Your task to perform on an android device: View the shopping cart on newegg.com. Add "jbl flip 4" to the cart on newegg.com Image 0: 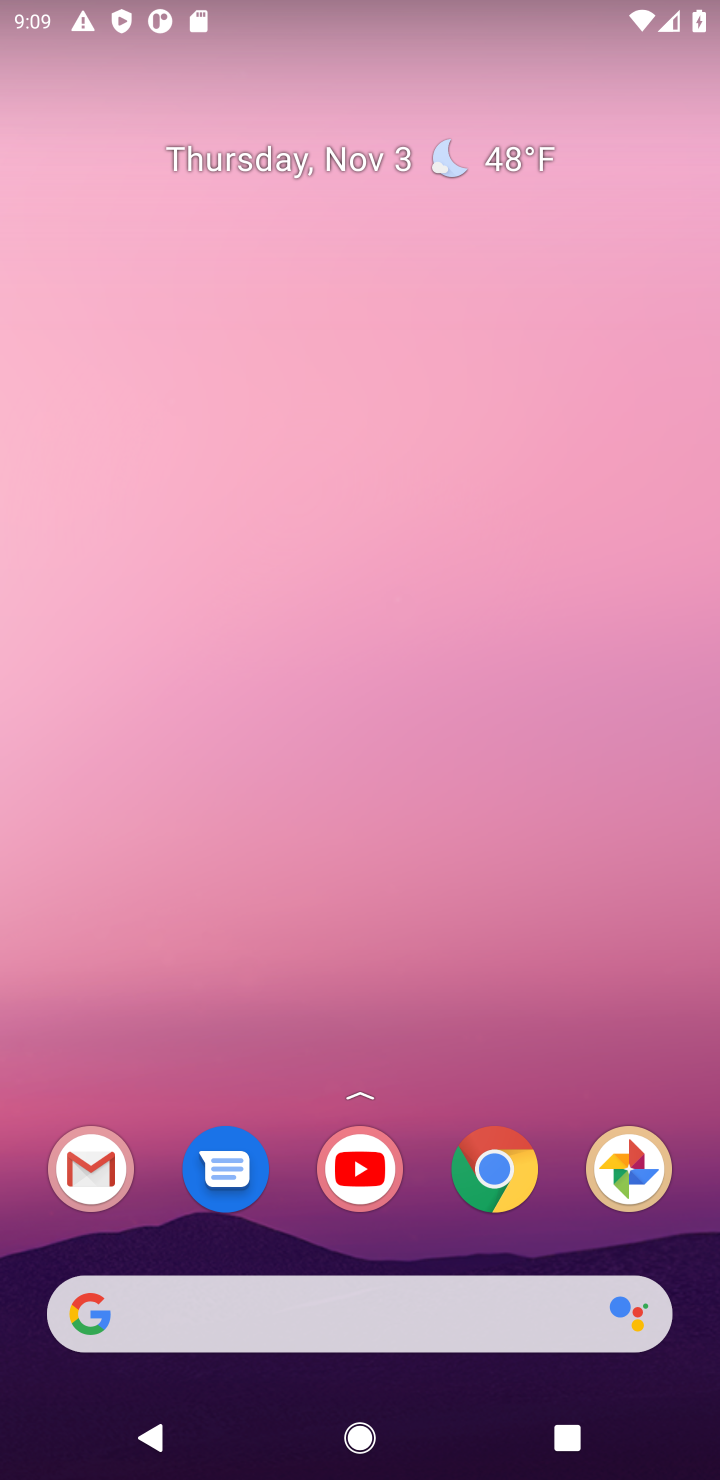
Step 0: drag from (433, 1258) to (546, 216)
Your task to perform on an android device: View the shopping cart on newegg.com. Add "jbl flip 4" to the cart on newegg.com Image 1: 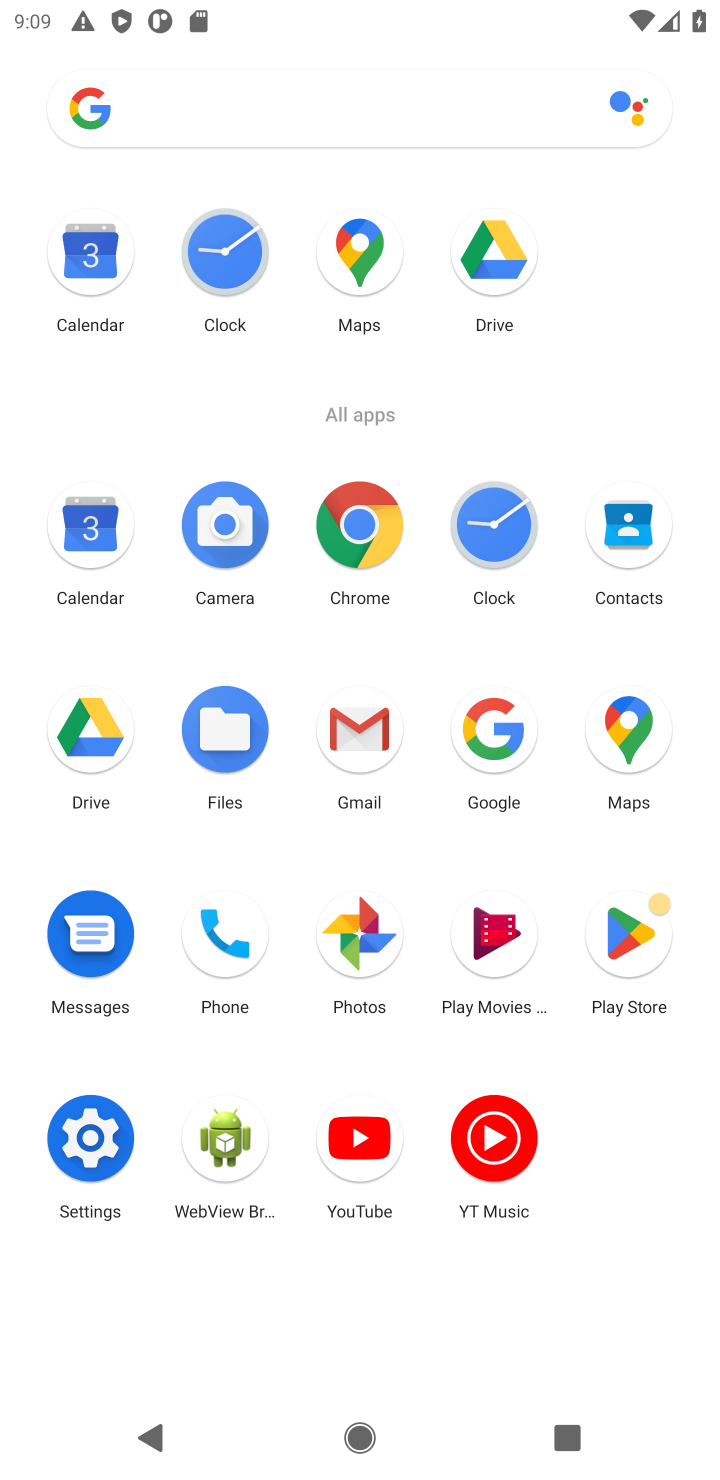
Step 1: click (361, 529)
Your task to perform on an android device: View the shopping cart on newegg.com. Add "jbl flip 4" to the cart on newegg.com Image 2: 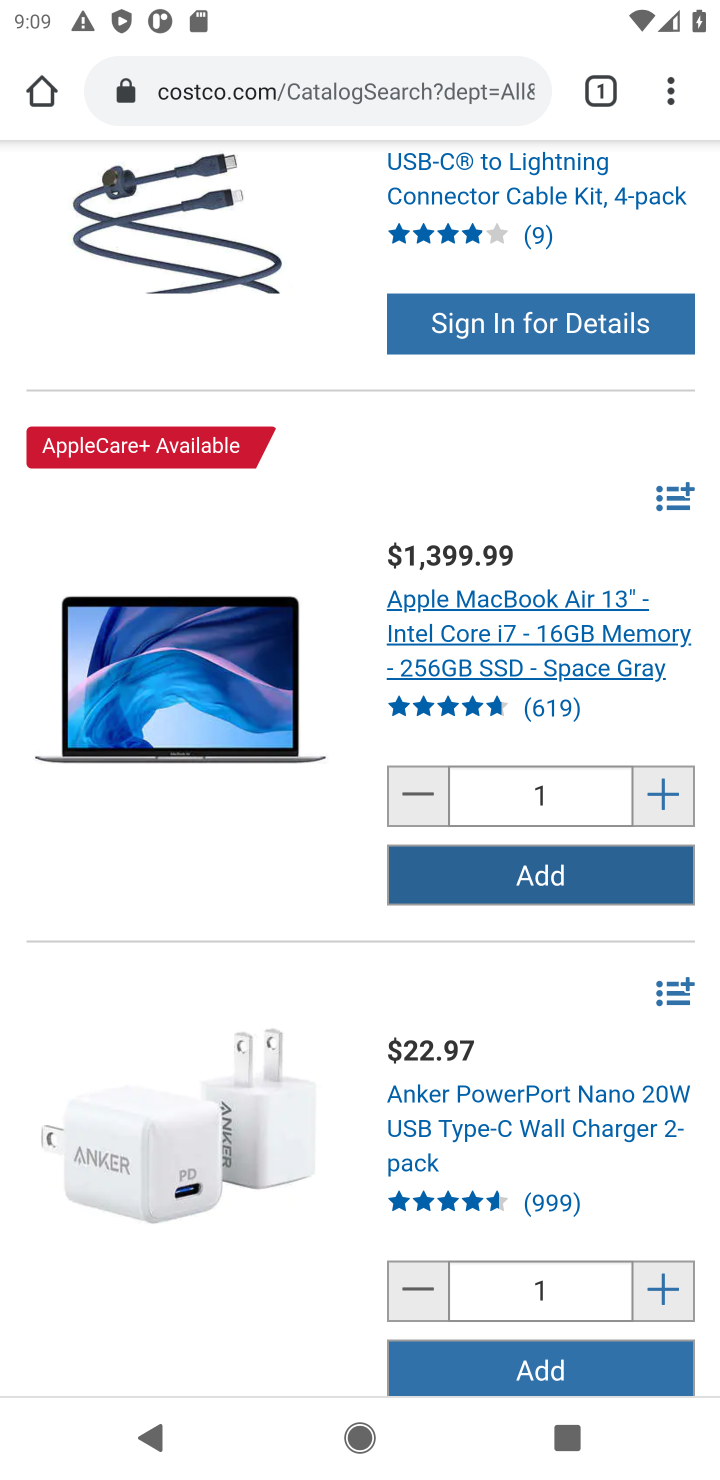
Step 2: drag from (293, 206) to (342, 927)
Your task to perform on an android device: View the shopping cart on newegg.com. Add "jbl flip 4" to the cart on newegg.com Image 3: 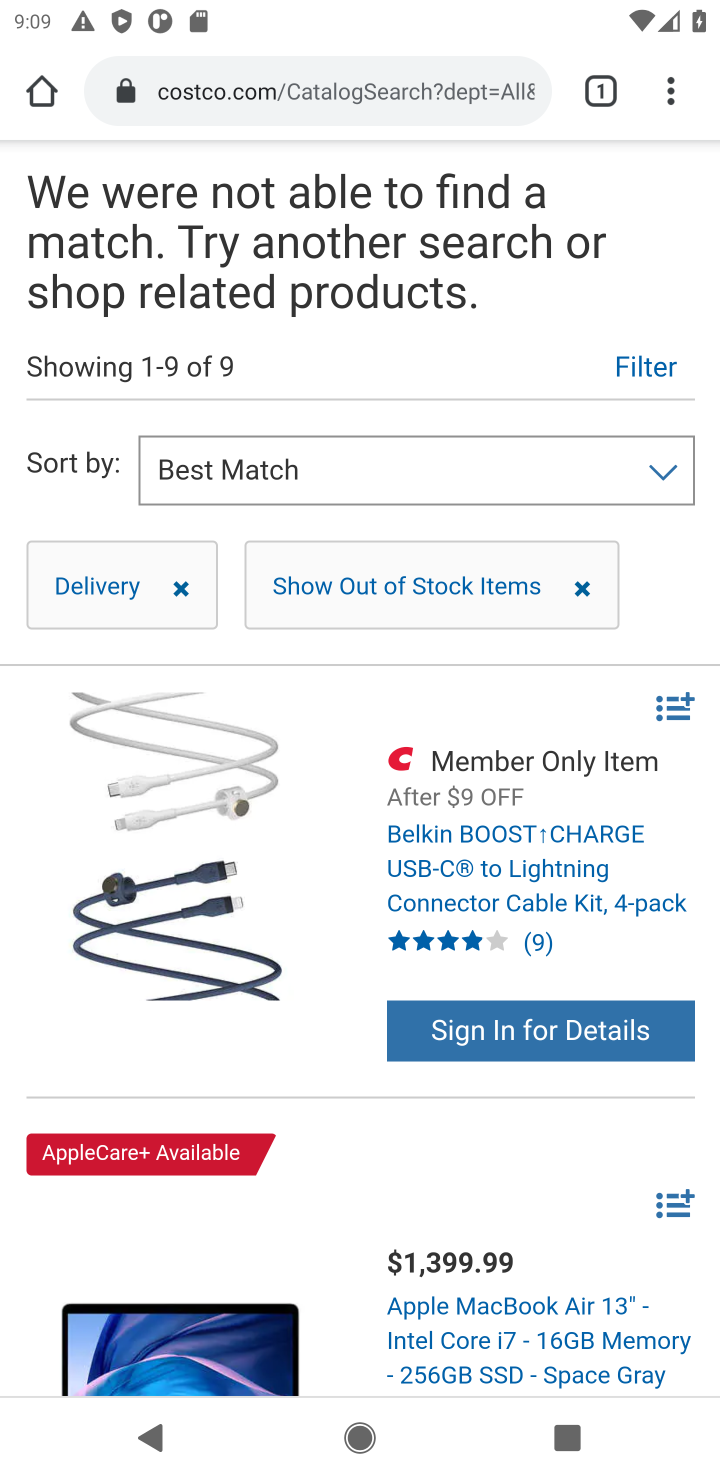
Step 3: drag from (351, 256) to (387, 813)
Your task to perform on an android device: View the shopping cart on newegg.com. Add "jbl flip 4" to the cart on newegg.com Image 4: 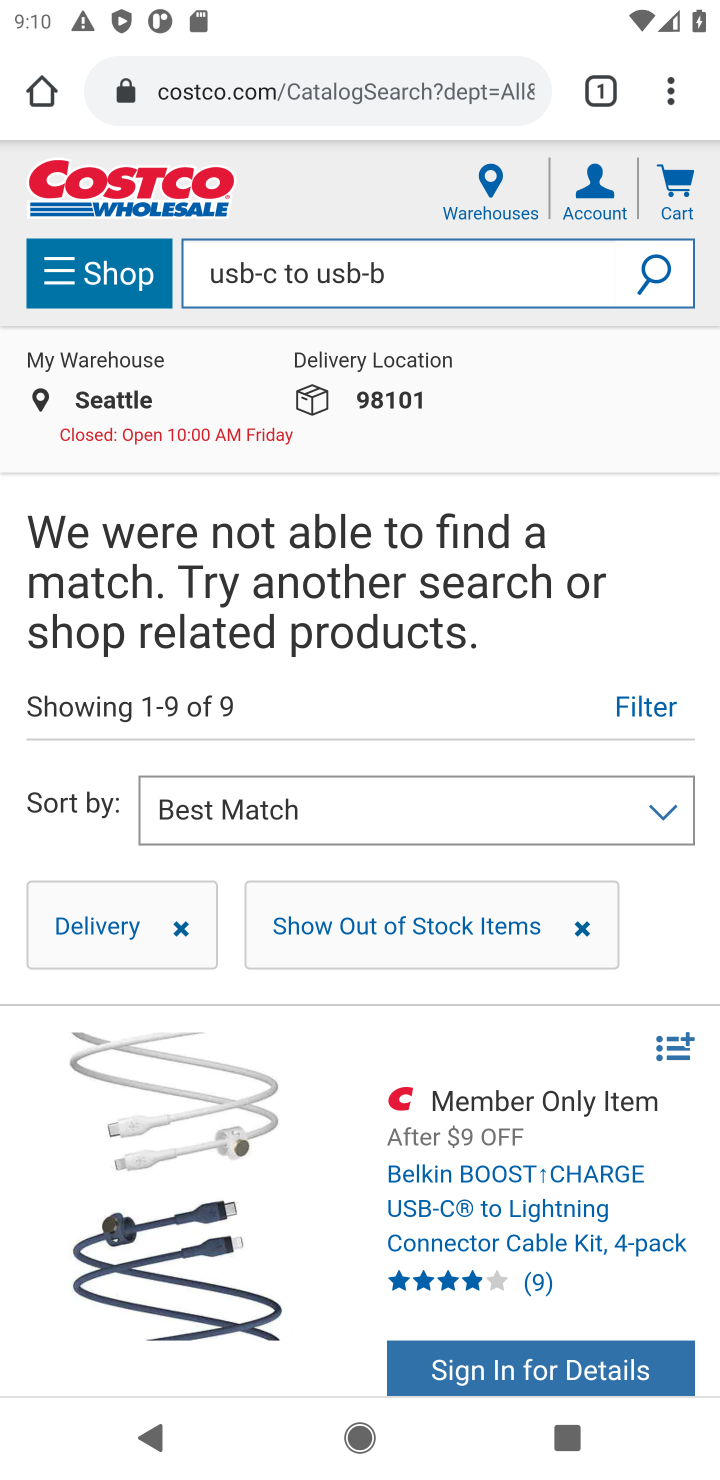
Step 4: click (361, 104)
Your task to perform on an android device: View the shopping cart on newegg.com. Add "jbl flip 4" to the cart on newegg.com Image 5: 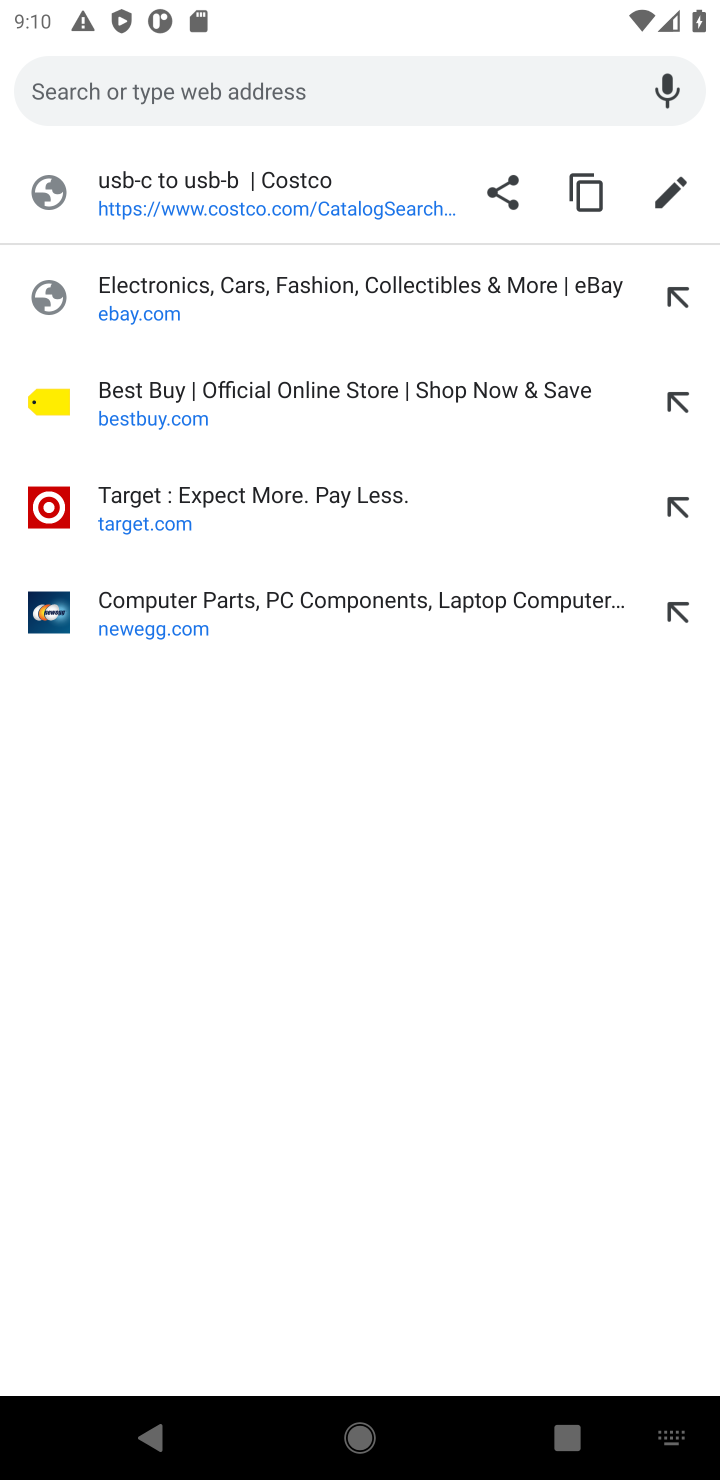
Step 5: type "newegg.com"
Your task to perform on an android device: View the shopping cart on newegg.com. Add "jbl flip 4" to the cart on newegg.com Image 6: 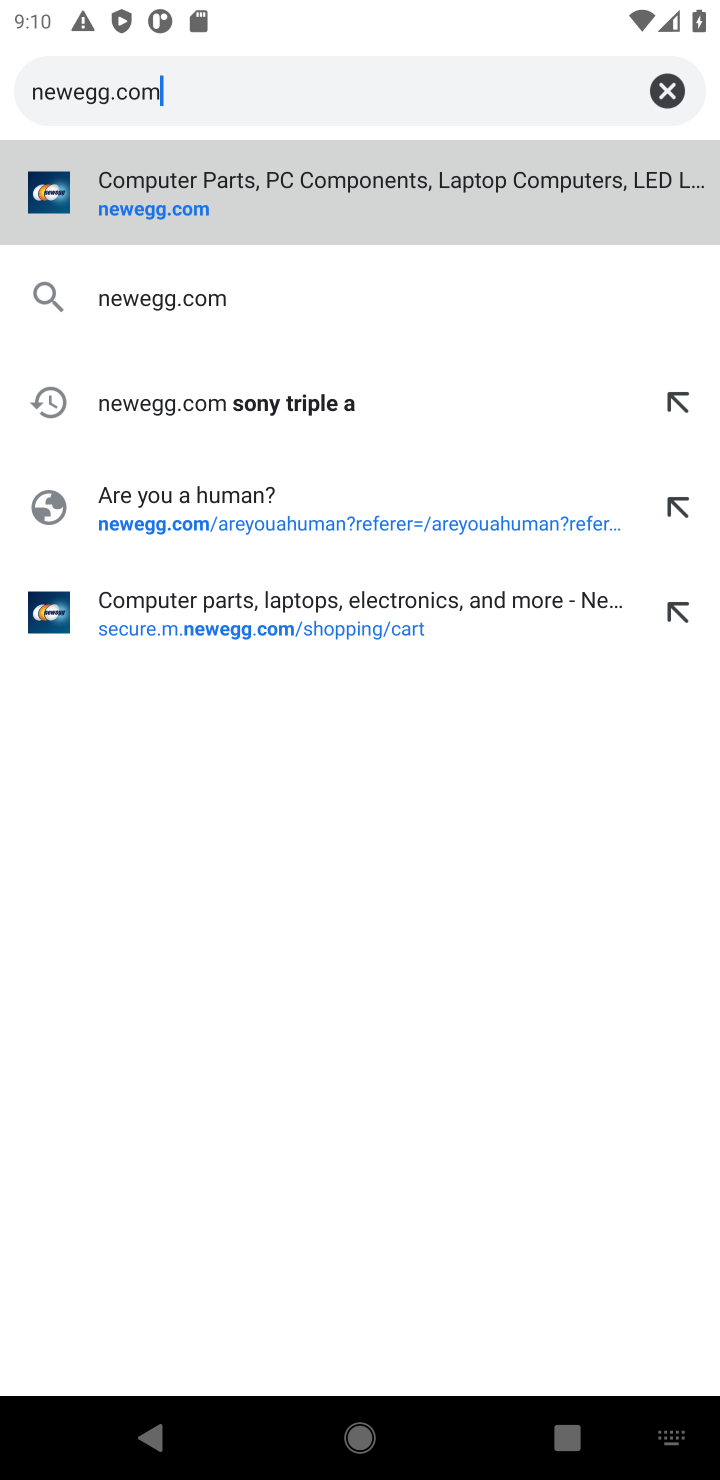
Step 6: press enter
Your task to perform on an android device: View the shopping cart on newegg.com. Add "jbl flip 4" to the cart on newegg.com Image 7: 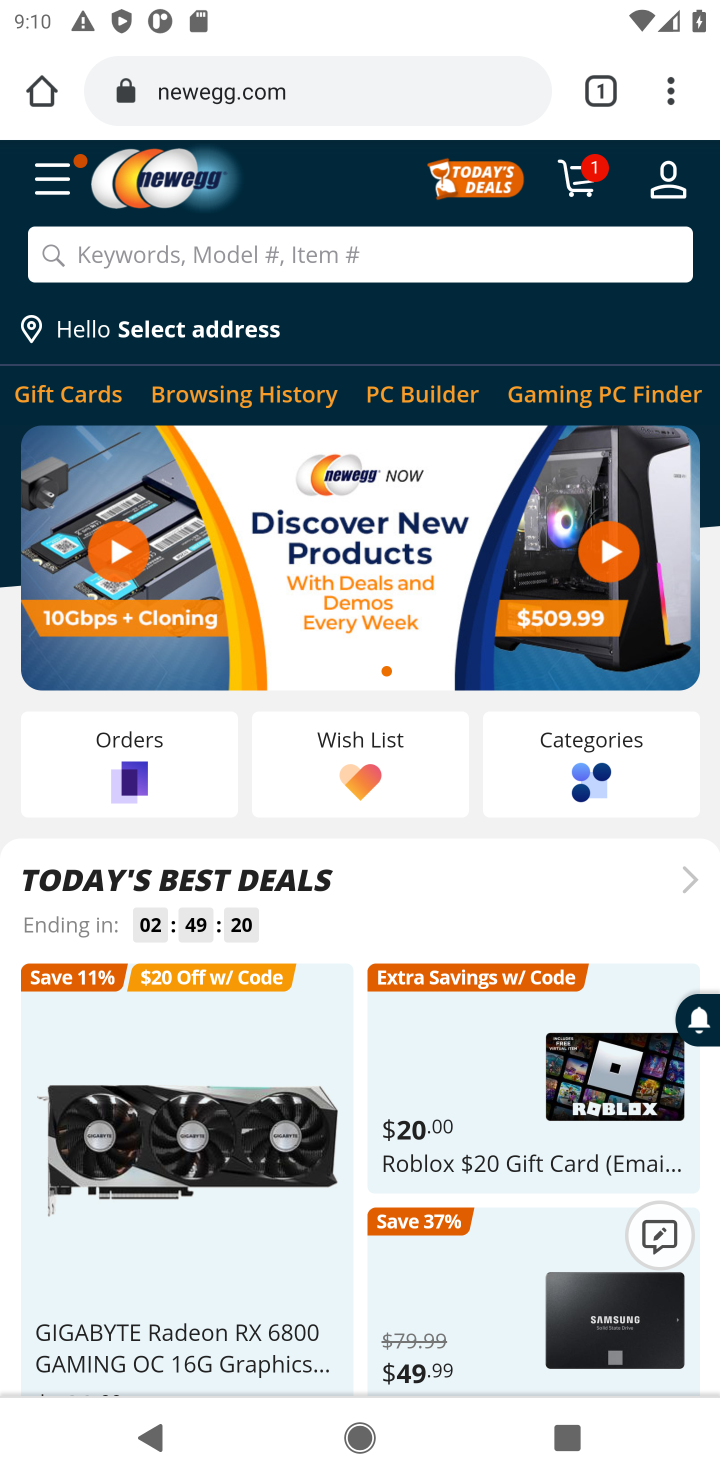
Step 7: click (477, 241)
Your task to perform on an android device: View the shopping cart on newegg.com. Add "jbl flip 4" to the cart on newegg.com Image 8: 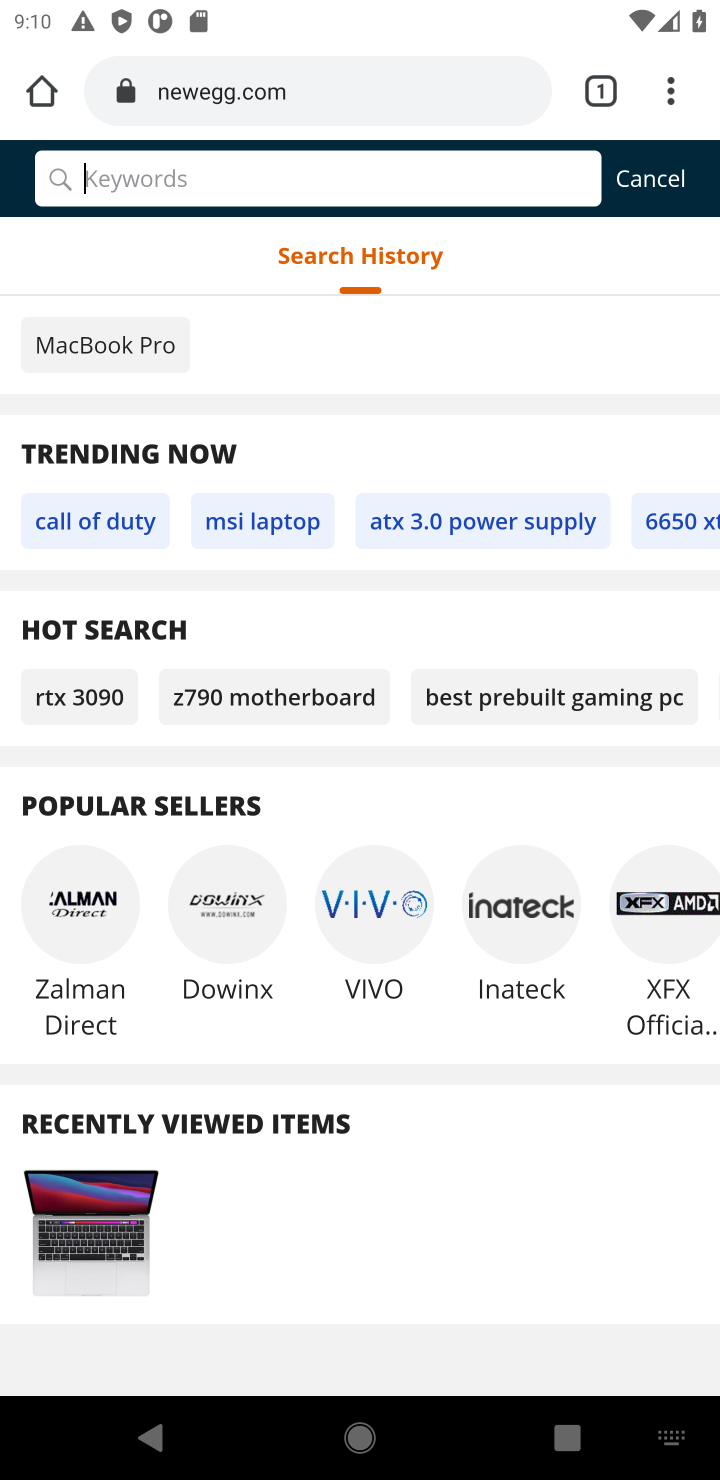
Step 8: type "jbl flip 4"
Your task to perform on an android device: View the shopping cart on newegg.com. Add "jbl flip 4" to the cart on newegg.com Image 9: 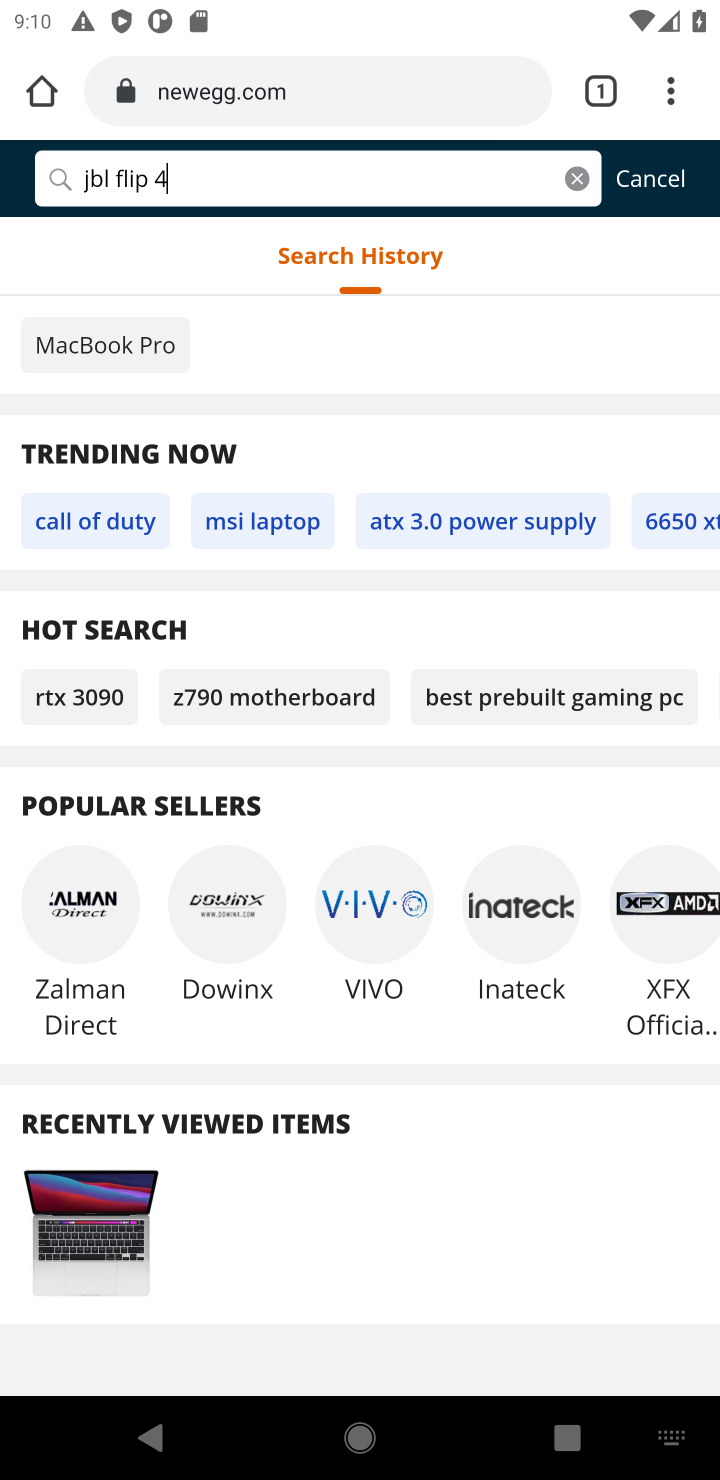
Step 9: press enter
Your task to perform on an android device: View the shopping cart on newegg.com. Add "jbl flip 4" to the cart on newegg.com Image 10: 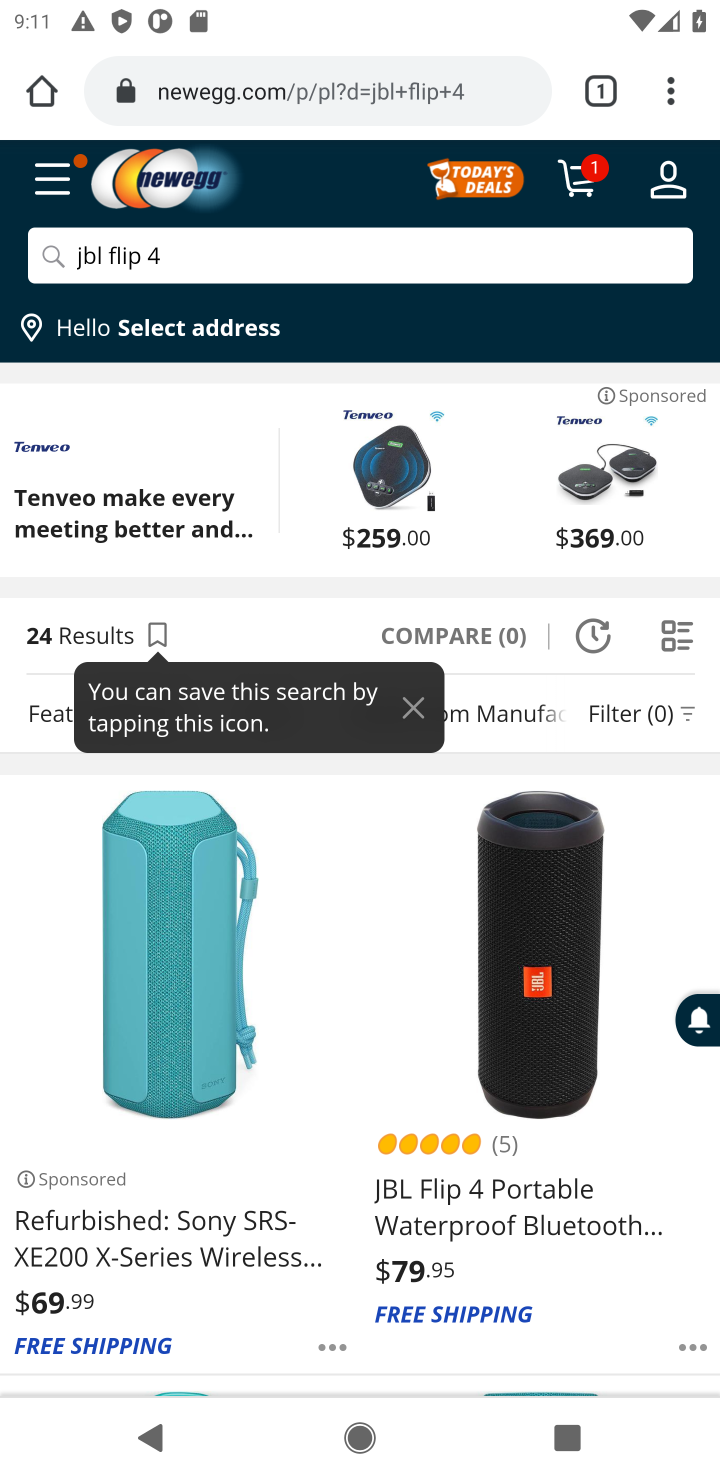
Step 10: drag from (519, 813) to (473, 527)
Your task to perform on an android device: View the shopping cart on newegg.com. Add "jbl flip 4" to the cart on newegg.com Image 11: 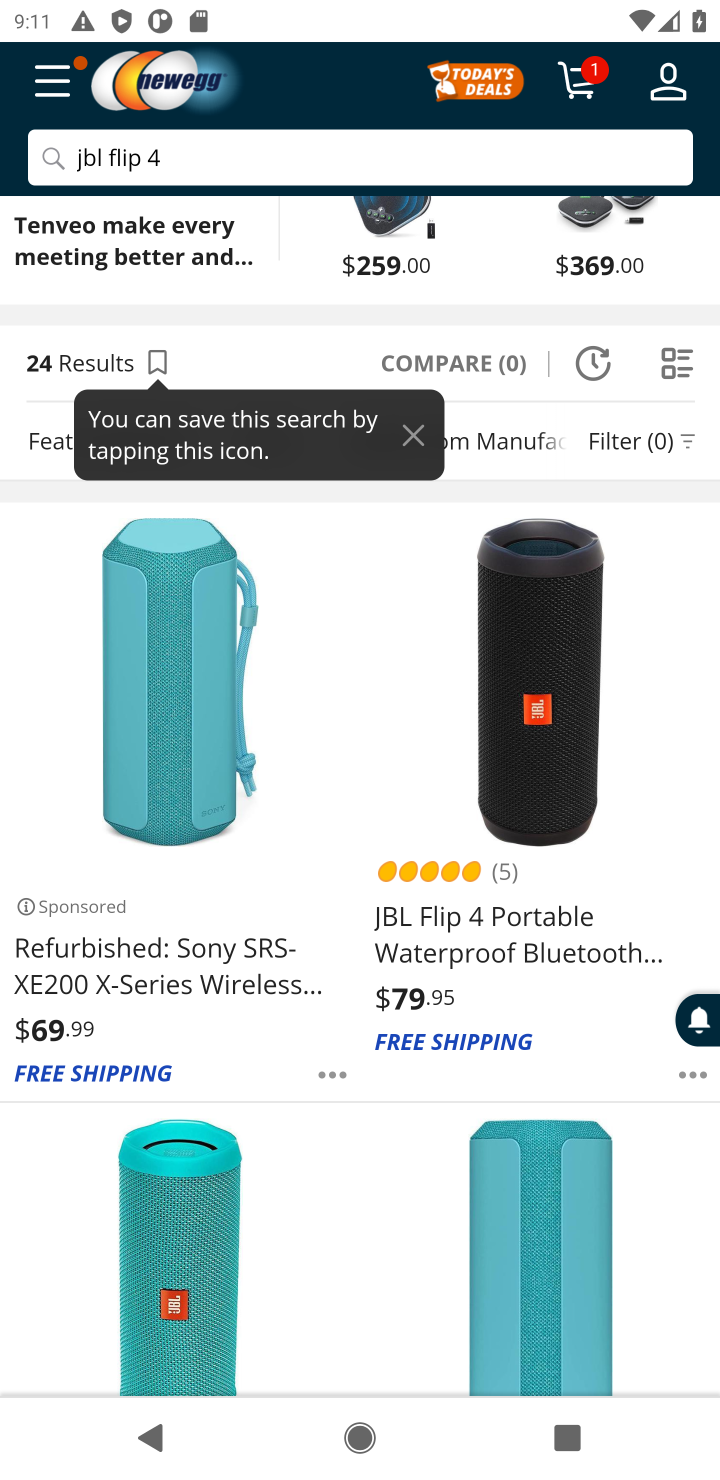
Step 11: click (480, 942)
Your task to perform on an android device: View the shopping cart on newegg.com. Add "jbl flip 4" to the cart on newegg.com Image 12: 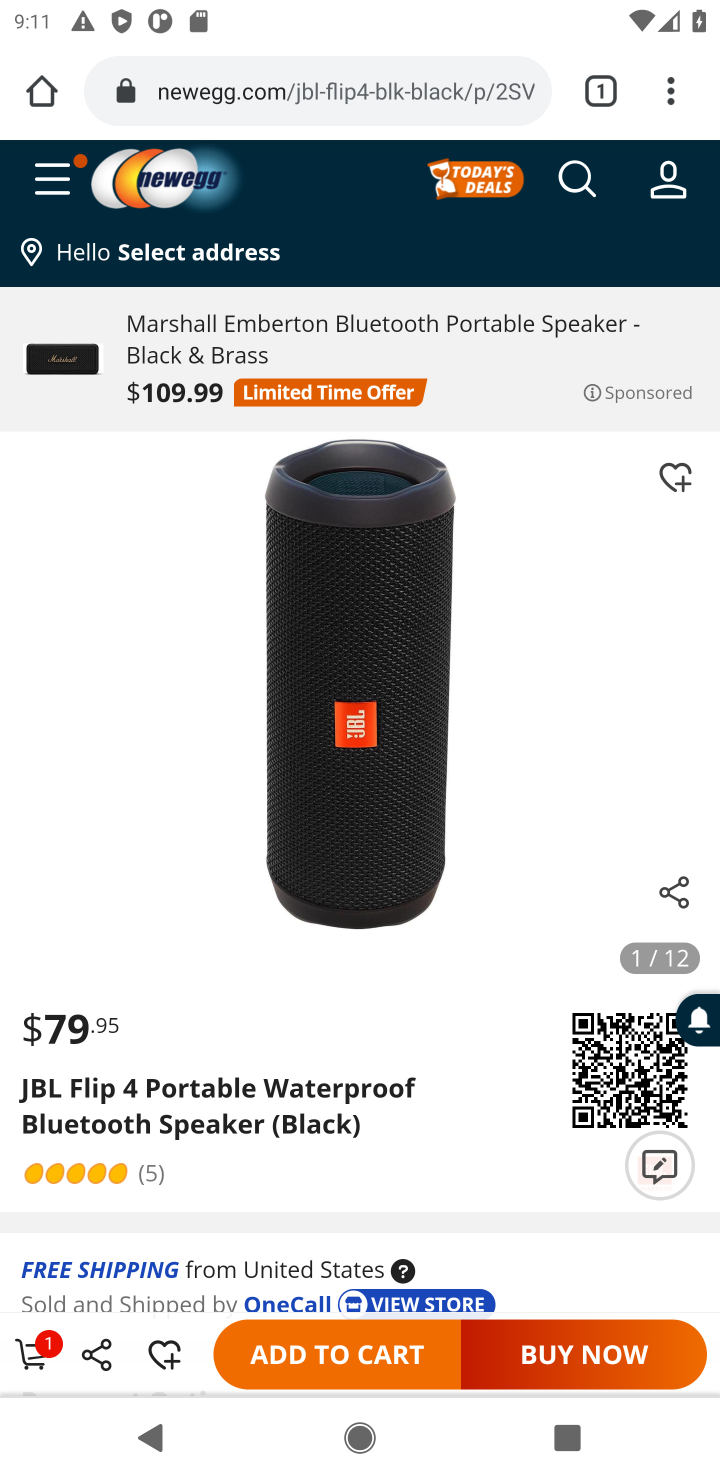
Step 12: drag from (352, 941) to (316, 452)
Your task to perform on an android device: View the shopping cart on newegg.com. Add "jbl flip 4" to the cart on newegg.com Image 13: 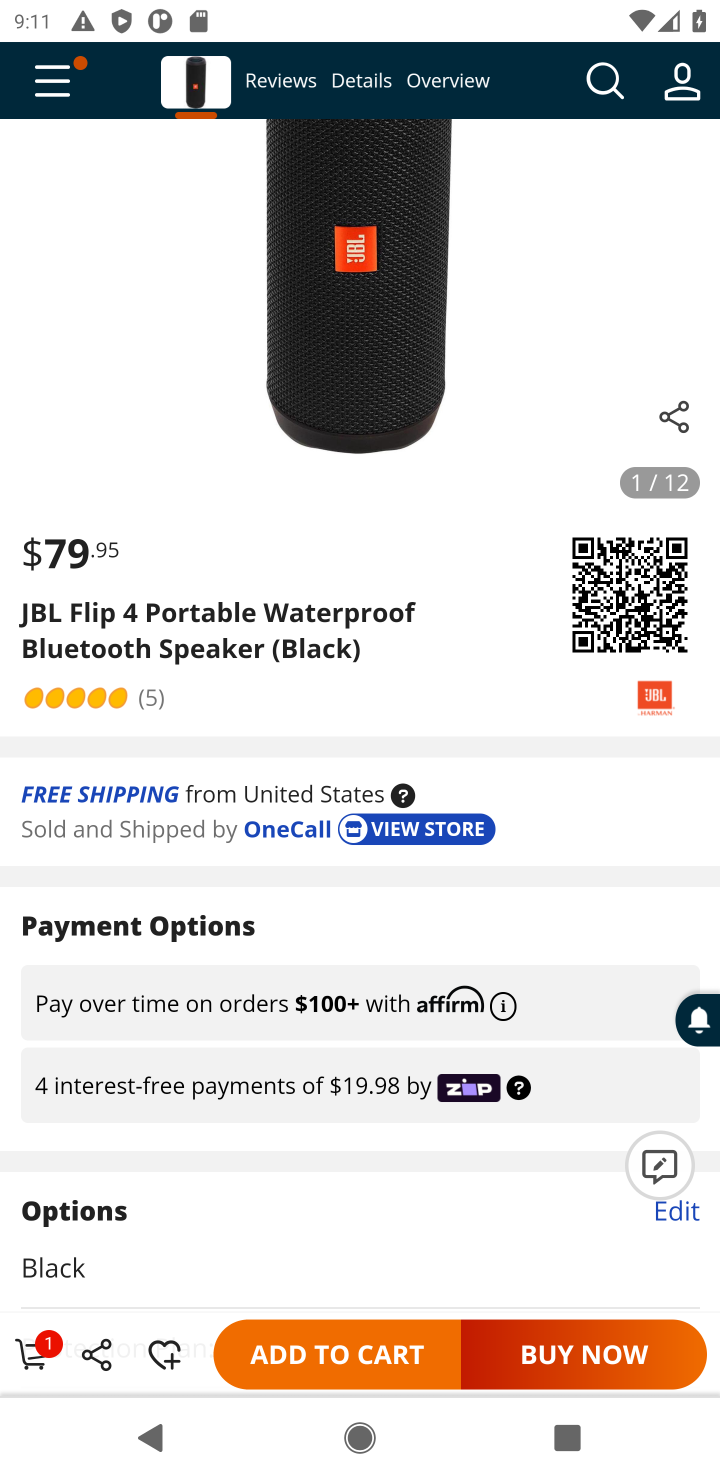
Step 13: drag from (547, 306) to (562, 1151)
Your task to perform on an android device: View the shopping cart on newegg.com. Add "jbl flip 4" to the cart on newegg.com Image 14: 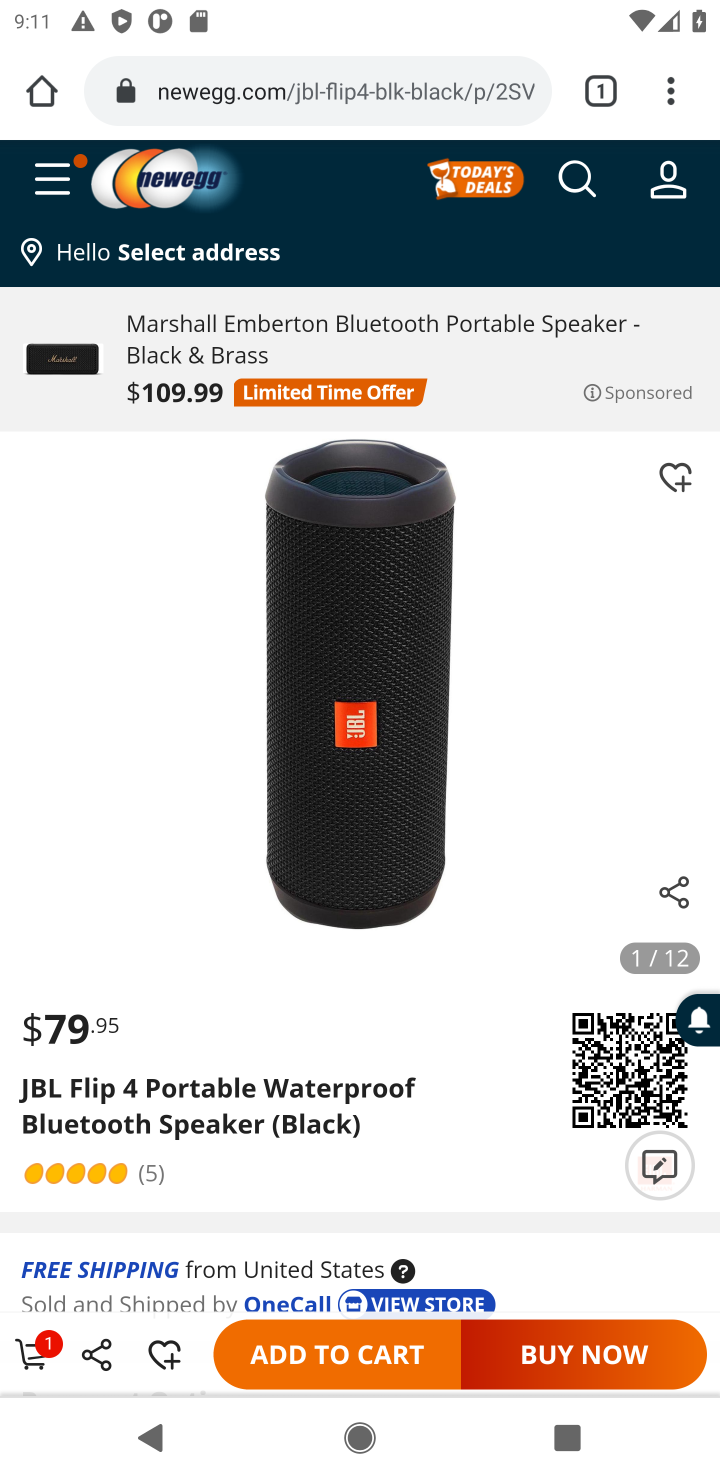
Step 14: click (33, 1341)
Your task to perform on an android device: View the shopping cart on newegg.com. Add "jbl flip 4" to the cart on newegg.com Image 15: 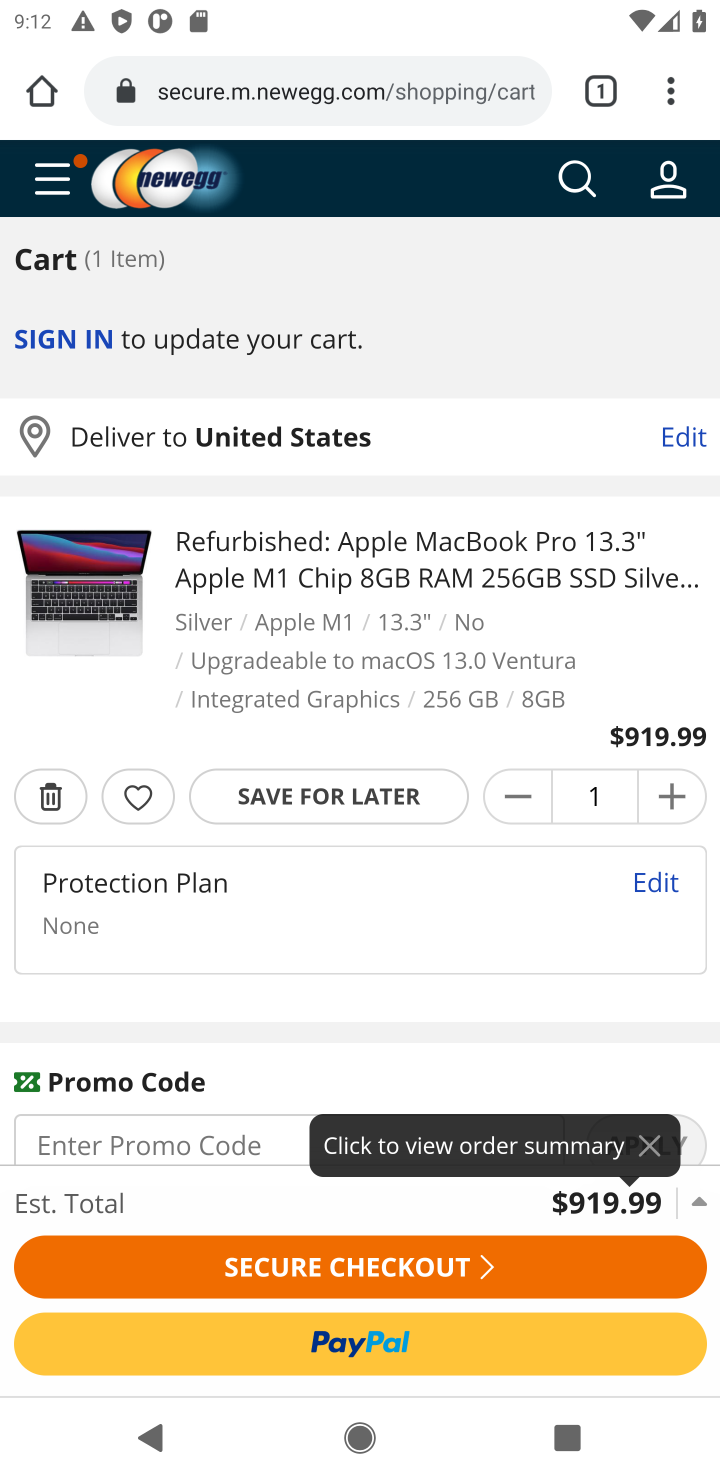
Step 15: click (570, 192)
Your task to perform on an android device: View the shopping cart on newegg.com. Add "jbl flip 4" to the cart on newegg.com Image 16: 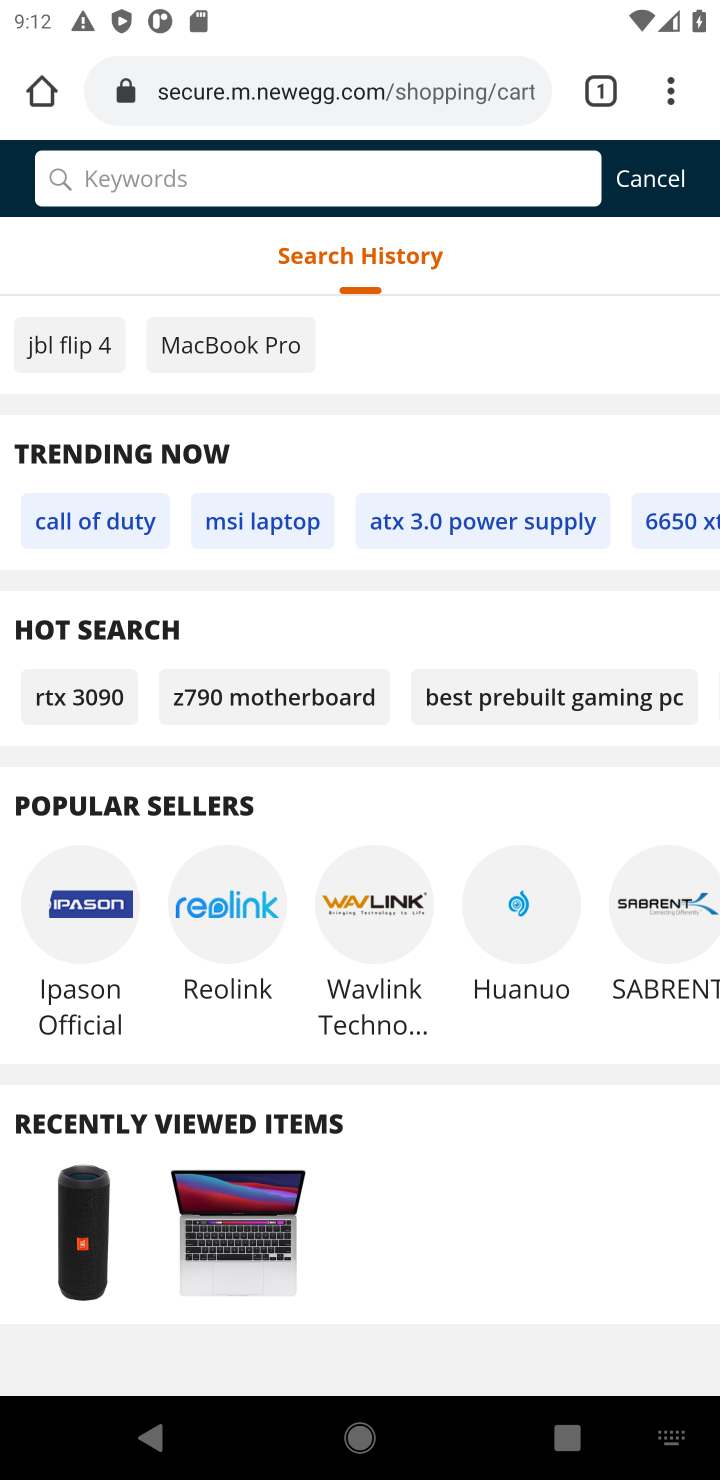
Step 16: type "jbl flip 4"
Your task to perform on an android device: View the shopping cart on newegg.com. Add "jbl flip 4" to the cart on newegg.com Image 17: 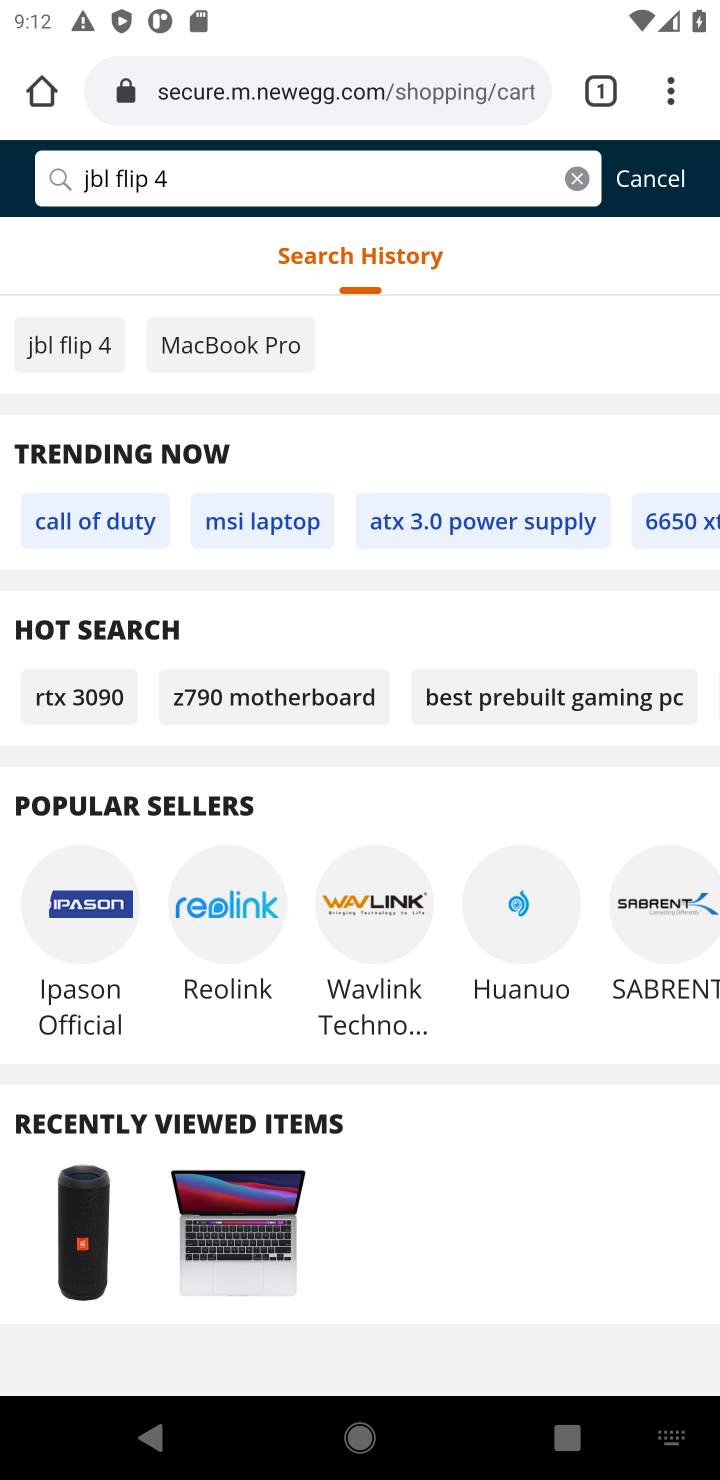
Step 17: press enter
Your task to perform on an android device: View the shopping cart on newegg.com. Add "jbl flip 4" to the cart on newegg.com Image 18: 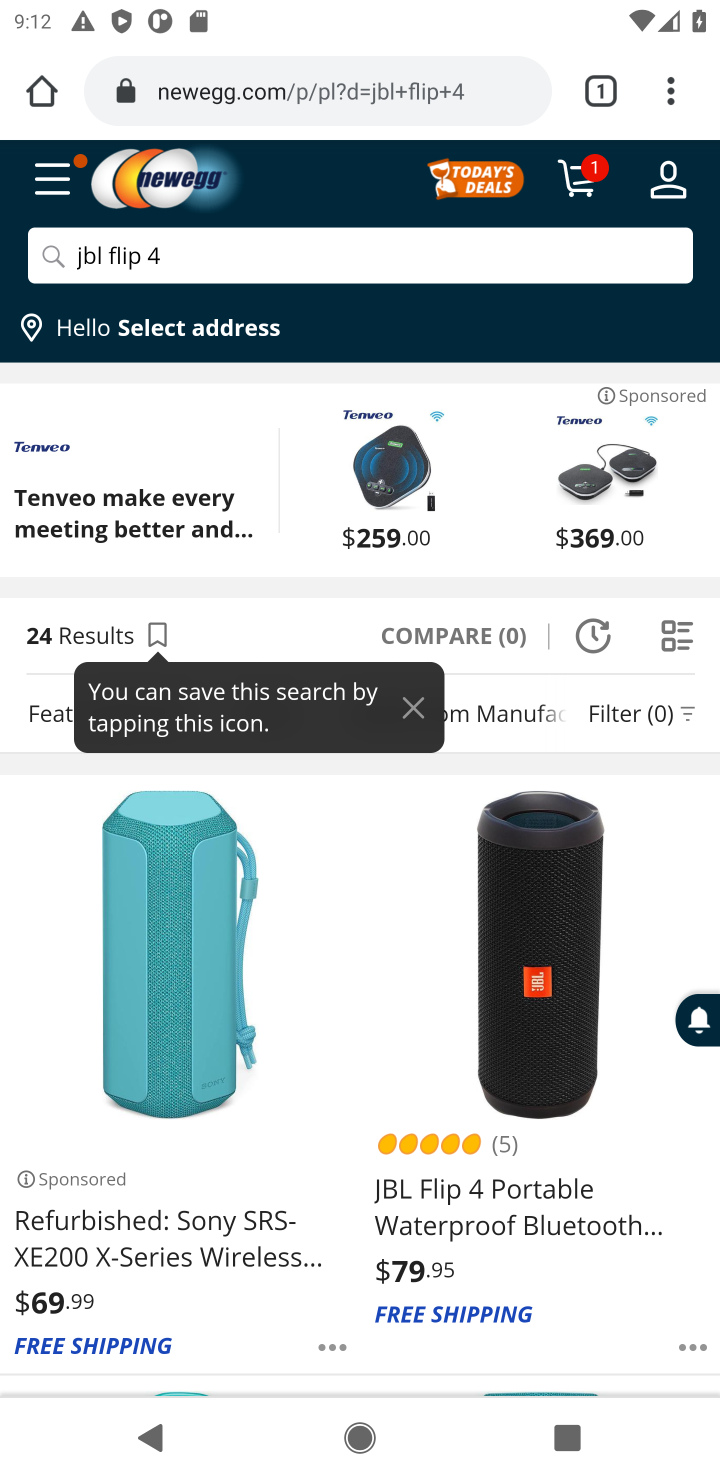
Step 18: drag from (338, 1041) to (330, 491)
Your task to perform on an android device: View the shopping cart on newegg.com. Add "jbl flip 4" to the cart on newegg.com Image 19: 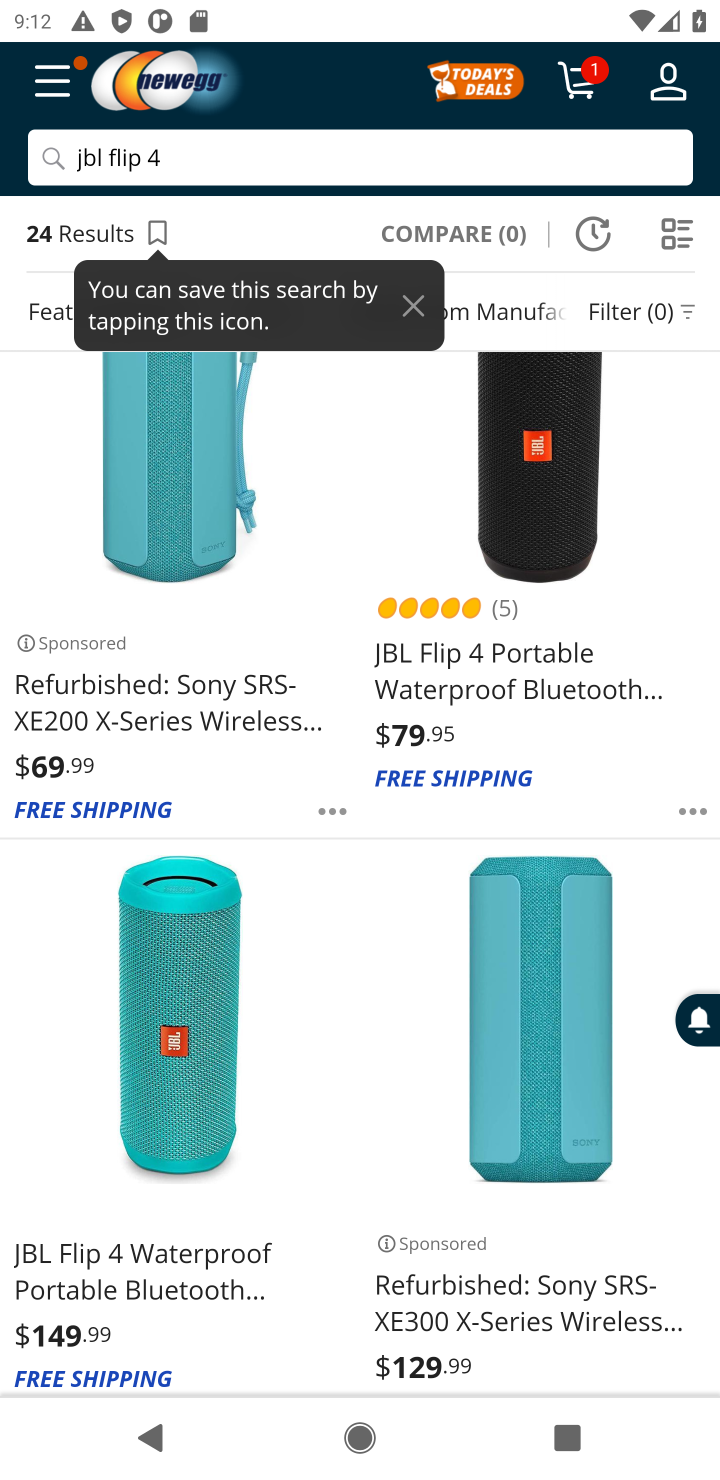
Step 19: drag from (411, 638) to (410, 1375)
Your task to perform on an android device: View the shopping cart on newegg.com. Add "jbl flip 4" to the cart on newegg.com Image 20: 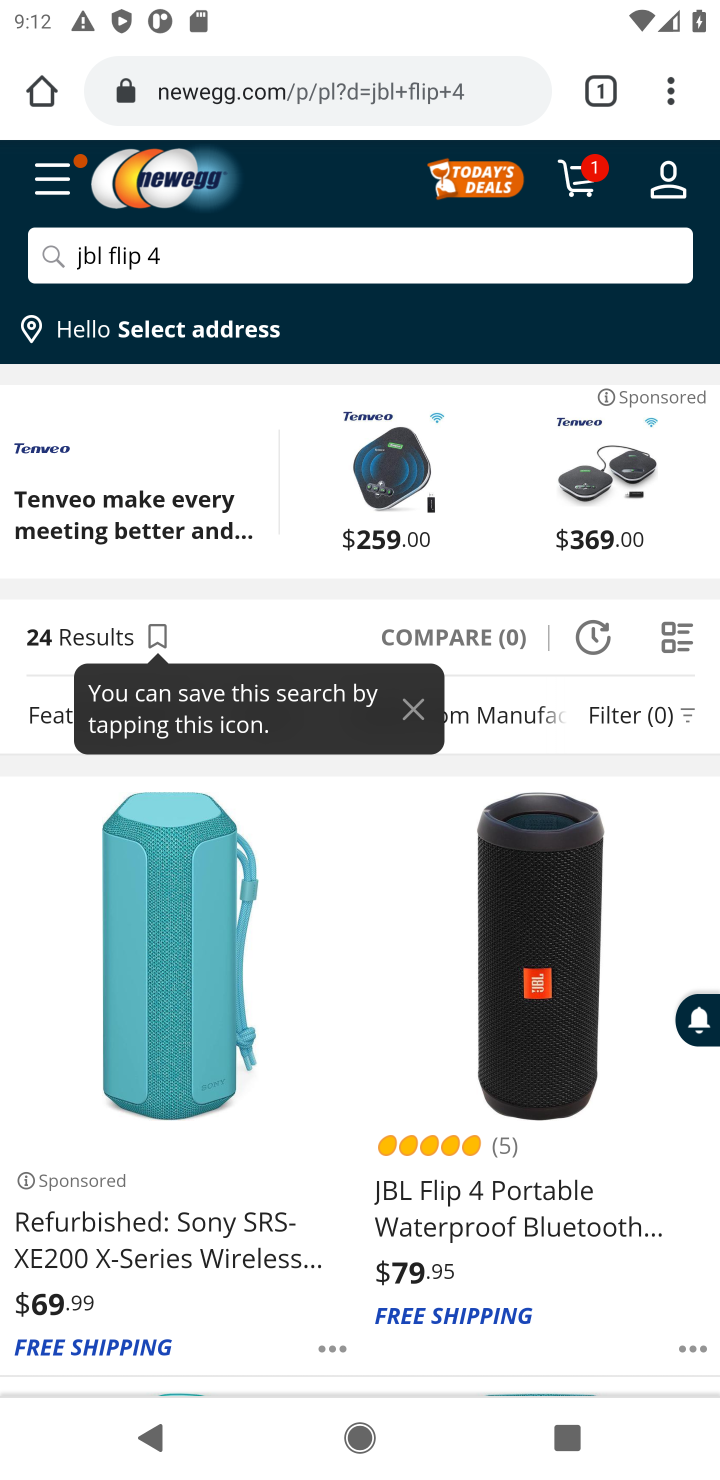
Step 20: click (531, 1221)
Your task to perform on an android device: View the shopping cart on newegg.com. Add "jbl flip 4" to the cart on newegg.com Image 21: 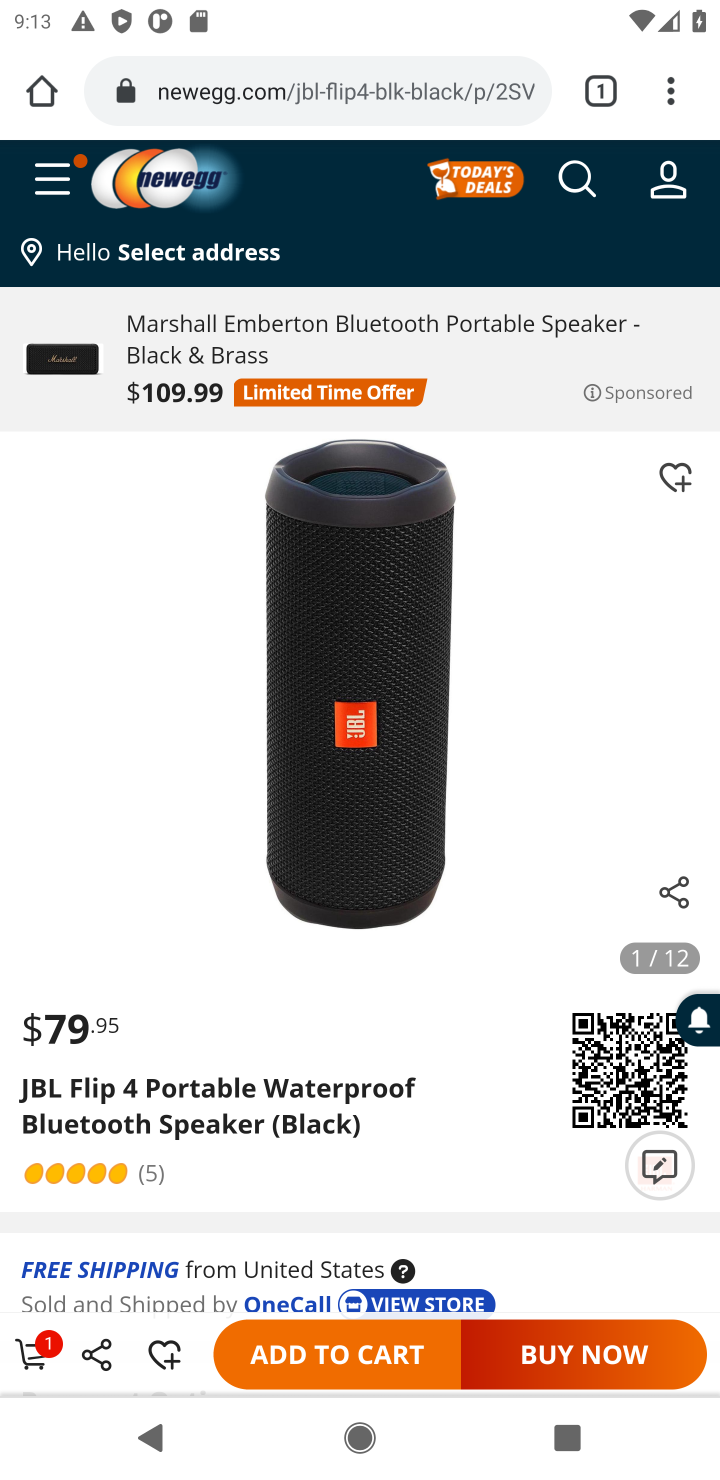
Step 21: click (367, 1364)
Your task to perform on an android device: View the shopping cart on newegg.com. Add "jbl flip 4" to the cart on newegg.com Image 22: 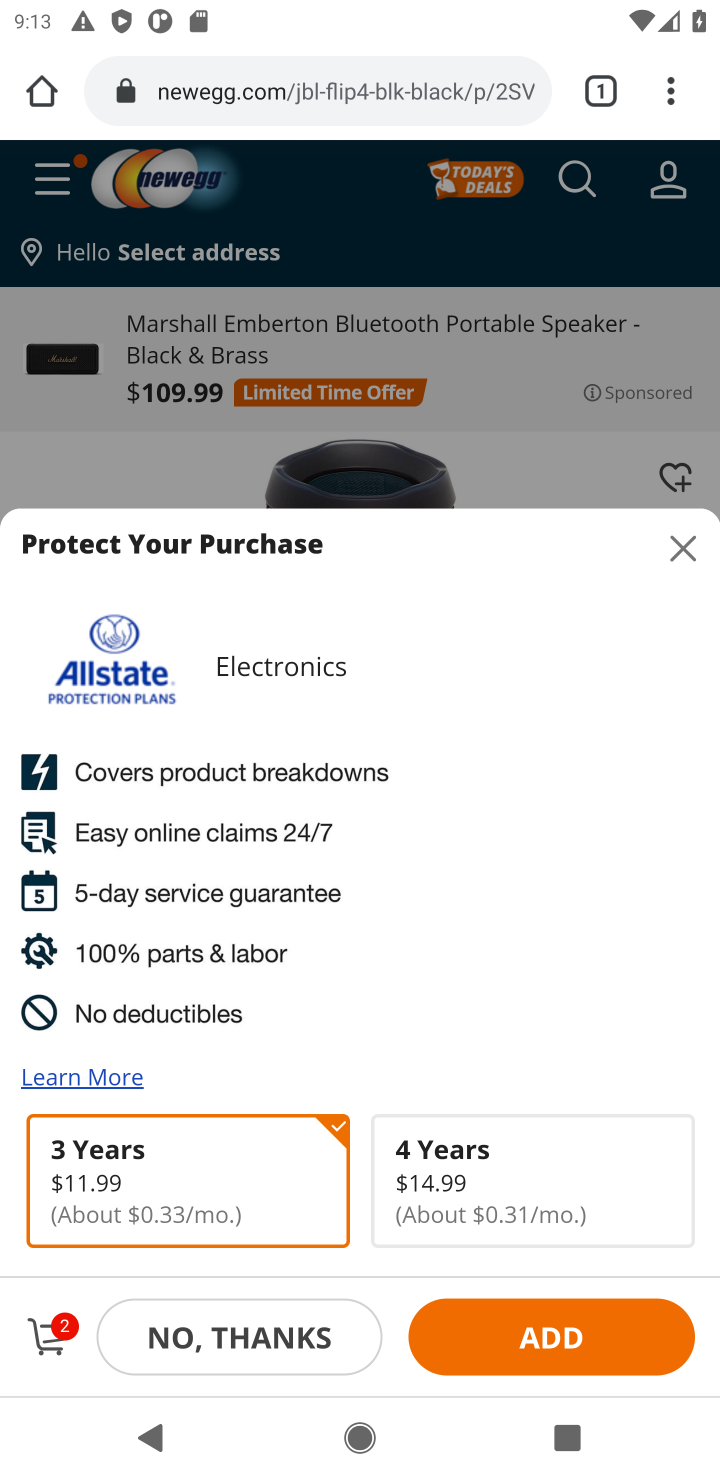
Step 22: task complete